Your task to perform on an android device: toggle sleep mode Image 0: 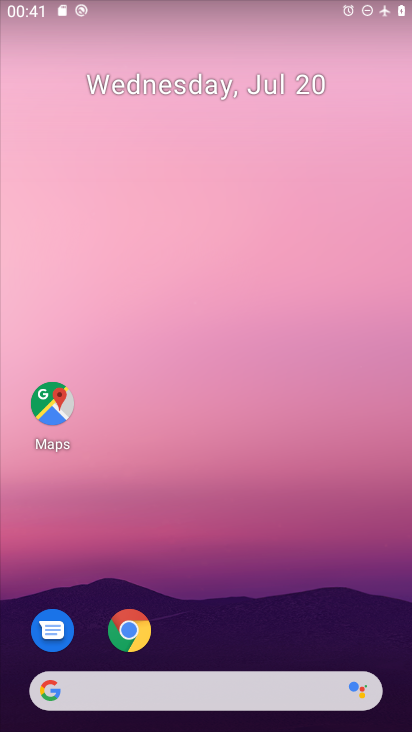
Step 0: drag from (181, 634) to (181, 265)
Your task to perform on an android device: toggle sleep mode Image 1: 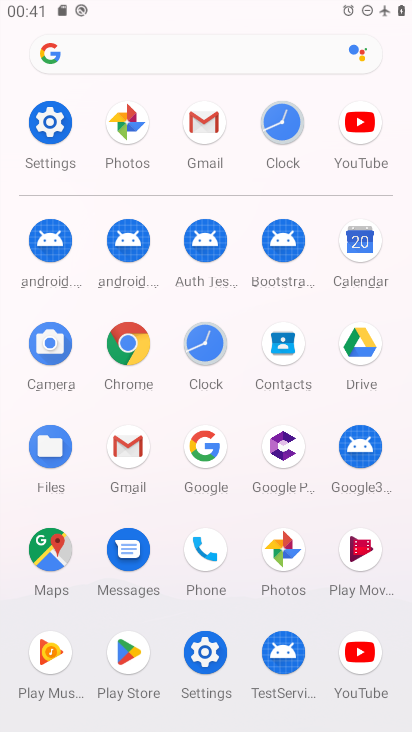
Step 1: click (62, 119)
Your task to perform on an android device: toggle sleep mode Image 2: 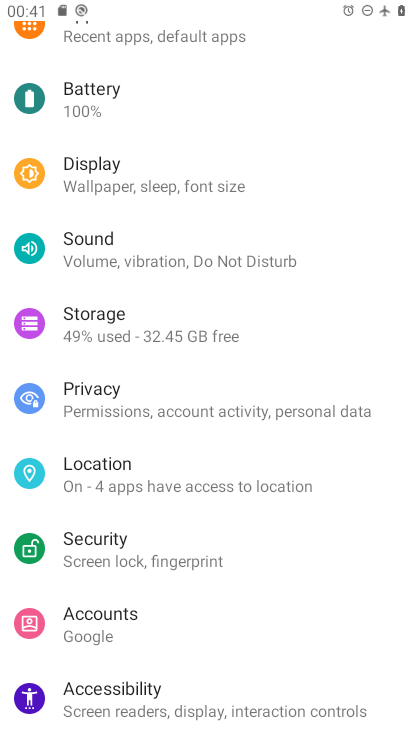
Step 2: drag from (203, 181) to (214, 501)
Your task to perform on an android device: toggle sleep mode Image 3: 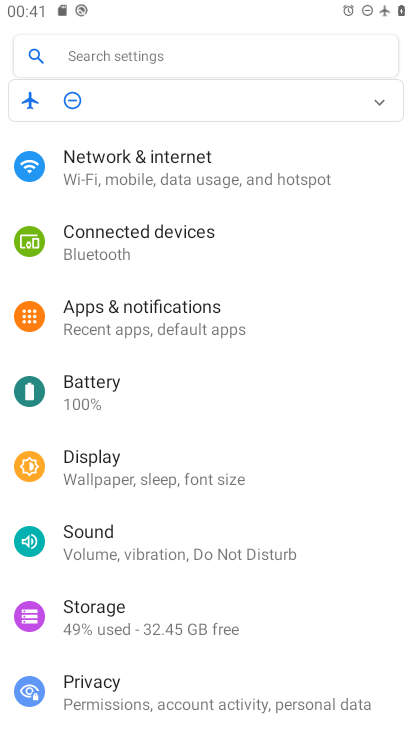
Step 3: click (135, 466)
Your task to perform on an android device: toggle sleep mode Image 4: 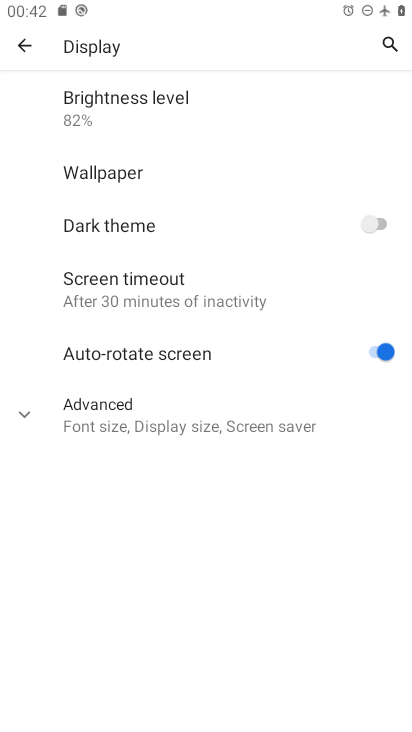
Step 4: click (117, 280)
Your task to perform on an android device: toggle sleep mode Image 5: 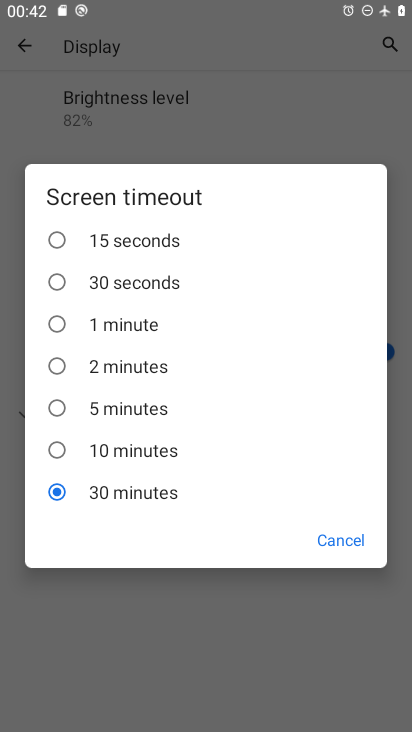
Step 5: click (122, 283)
Your task to perform on an android device: toggle sleep mode Image 6: 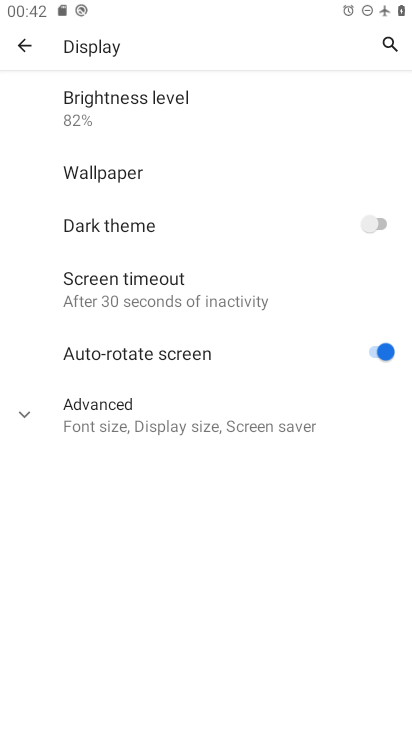
Step 6: task complete